Your task to perform on an android device: change your default location settings in chrome Image 0: 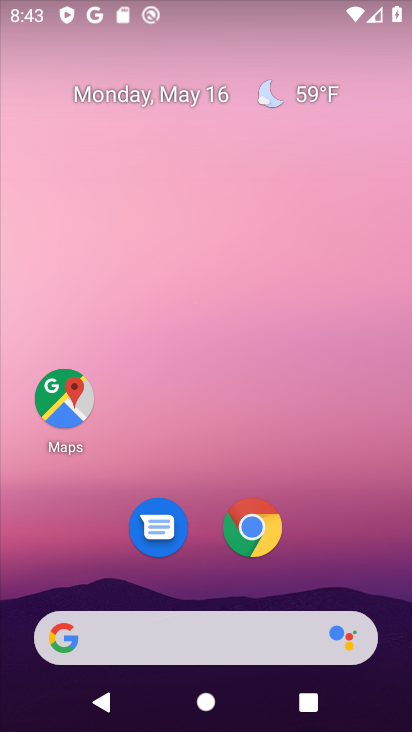
Step 0: drag from (307, 518) to (254, 160)
Your task to perform on an android device: change your default location settings in chrome Image 1: 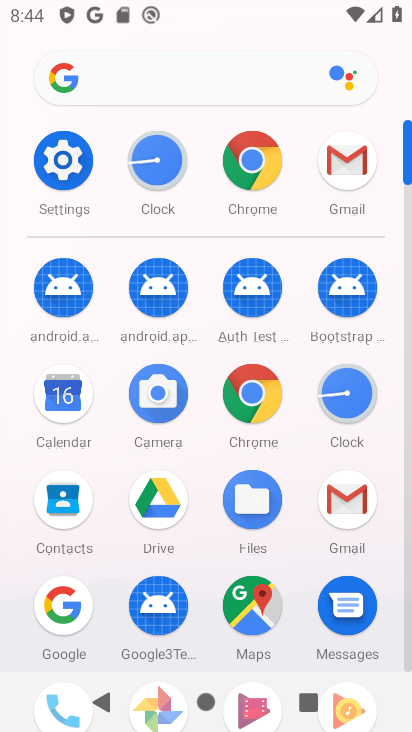
Step 1: click (263, 388)
Your task to perform on an android device: change your default location settings in chrome Image 2: 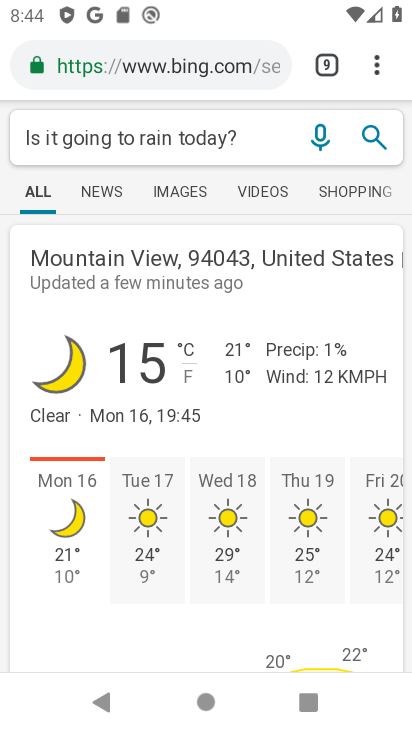
Step 2: click (367, 65)
Your task to perform on an android device: change your default location settings in chrome Image 3: 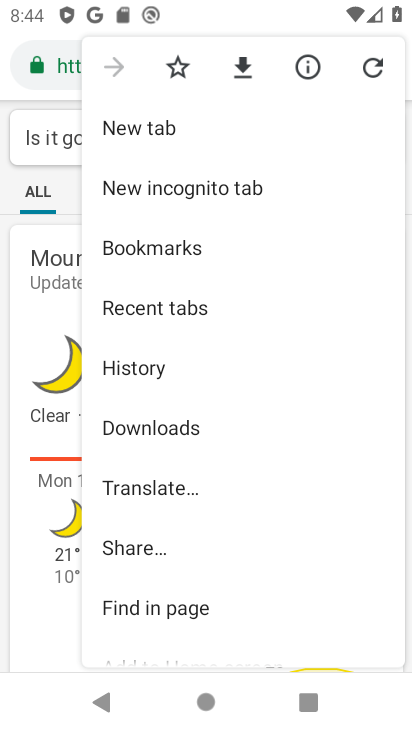
Step 3: drag from (224, 596) to (220, 265)
Your task to perform on an android device: change your default location settings in chrome Image 4: 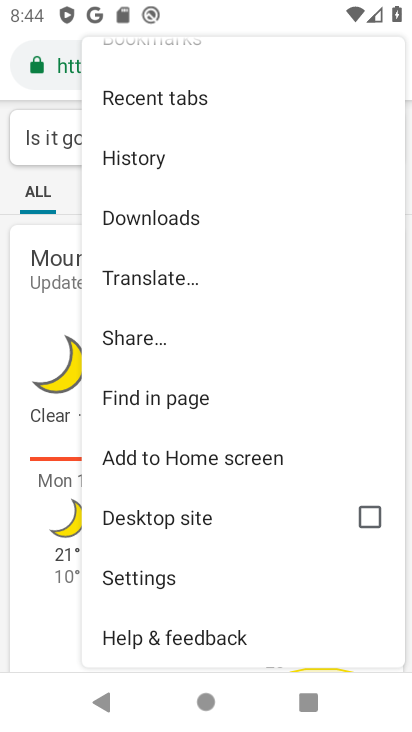
Step 4: drag from (210, 534) to (231, 428)
Your task to perform on an android device: change your default location settings in chrome Image 5: 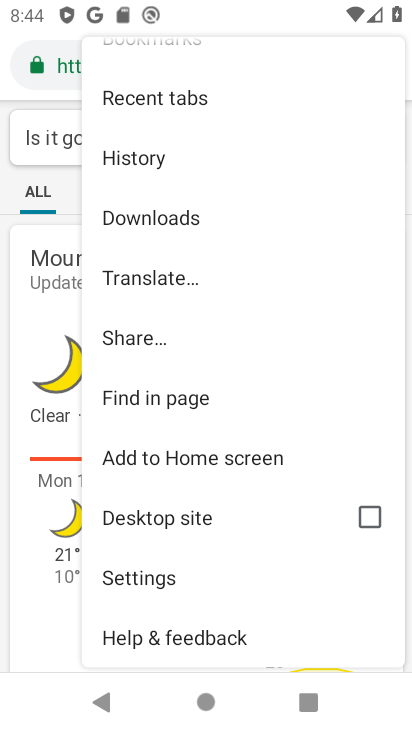
Step 5: click (149, 578)
Your task to perform on an android device: change your default location settings in chrome Image 6: 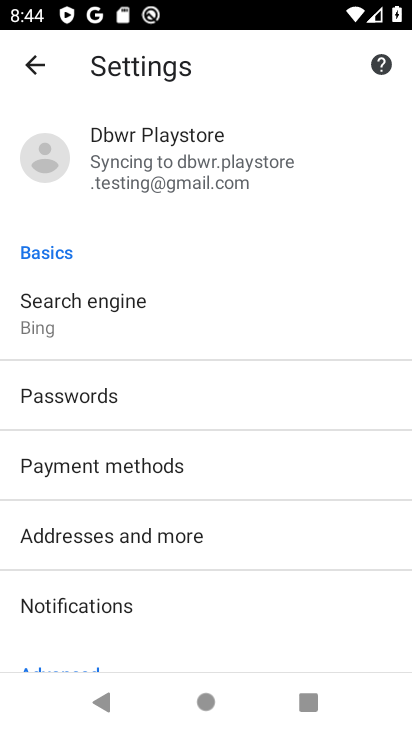
Step 6: drag from (199, 604) to (218, 516)
Your task to perform on an android device: change your default location settings in chrome Image 7: 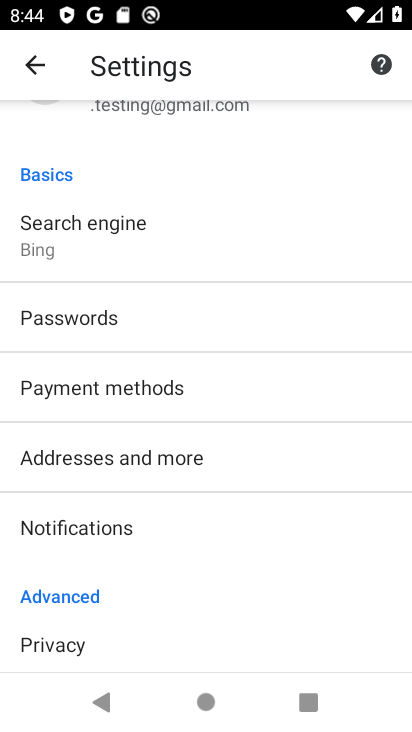
Step 7: drag from (181, 282) to (196, 513)
Your task to perform on an android device: change your default location settings in chrome Image 8: 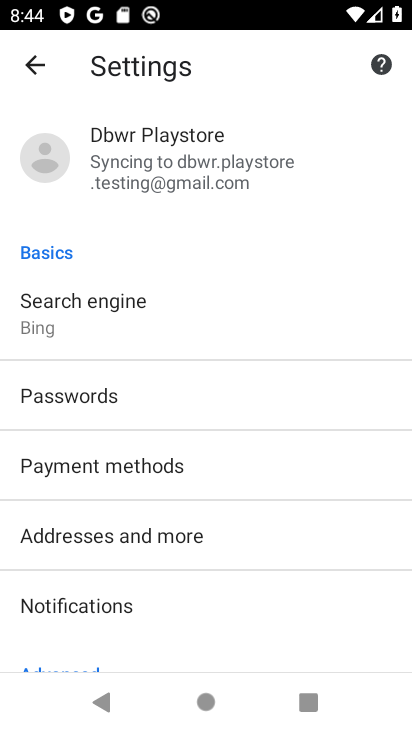
Step 8: drag from (197, 588) to (264, 202)
Your task to perform on an android device: change your default location settings in chrome Image 9: 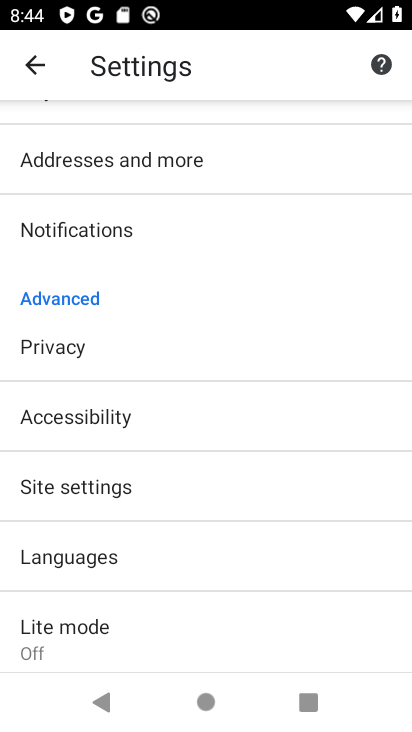
Step 9: click (125, 550)
Your task to perform on an android device: change your default location settings in chrome Image 10: 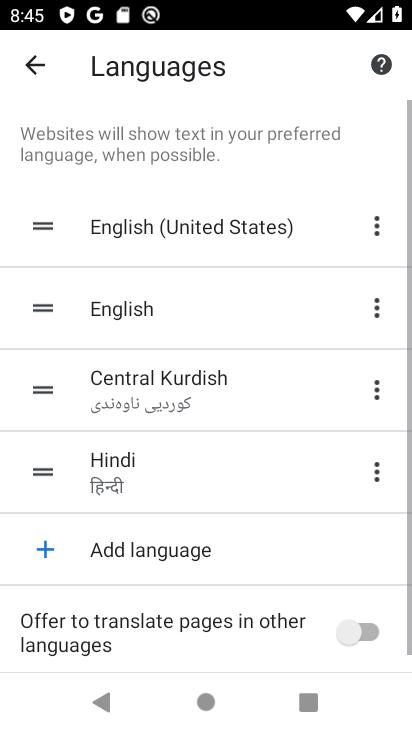
Step 10: click (37, 48)
Your task to perform on an android device: change your default location settings in chrome Image 11: 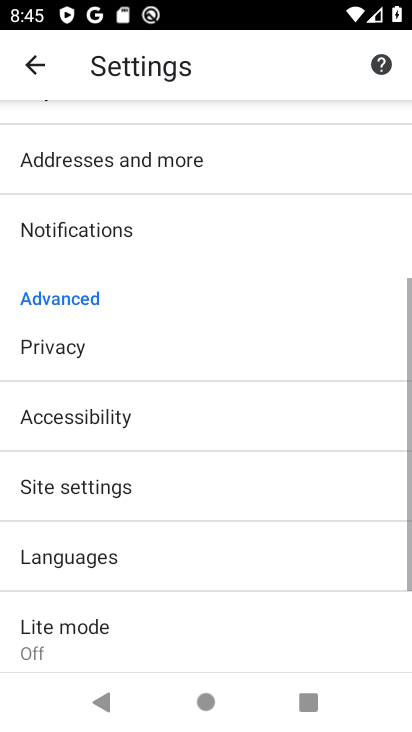
Step 11: click (171, 498)
Your task to perform on an android device: change your default location settings in chrome Image 12: 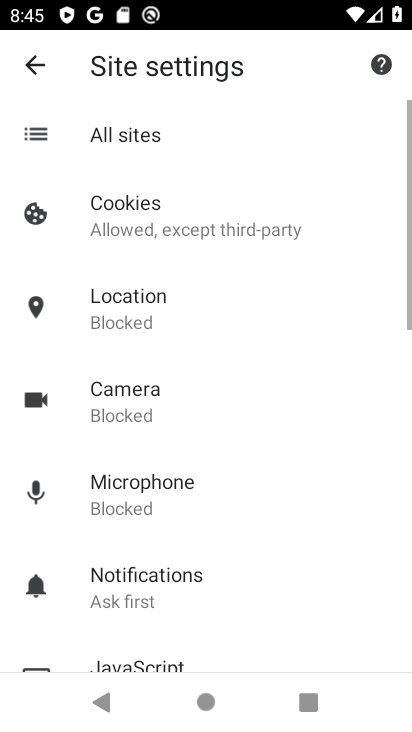
Step 12: click (129, 300)
Your task to perform on an android device: change your default location settings in chrome Image 13: 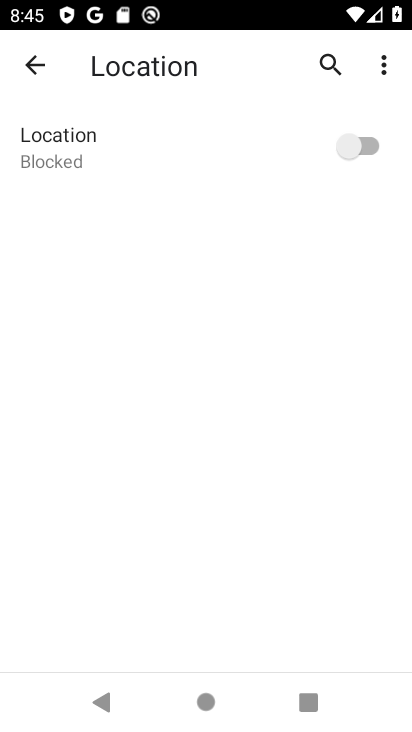
Step 13: click (351, 129)
Your task to perform on an android device: change your default location settings in chrome Image 14: 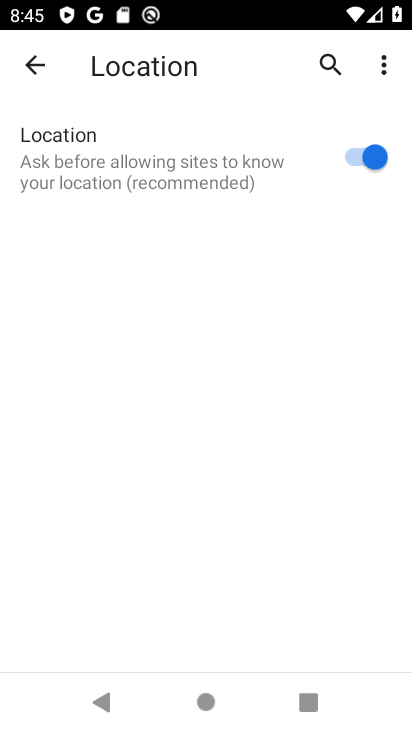
Step 14: task complete